Your task to perform on an android device: turn on javascript in the chrome app Image 0: 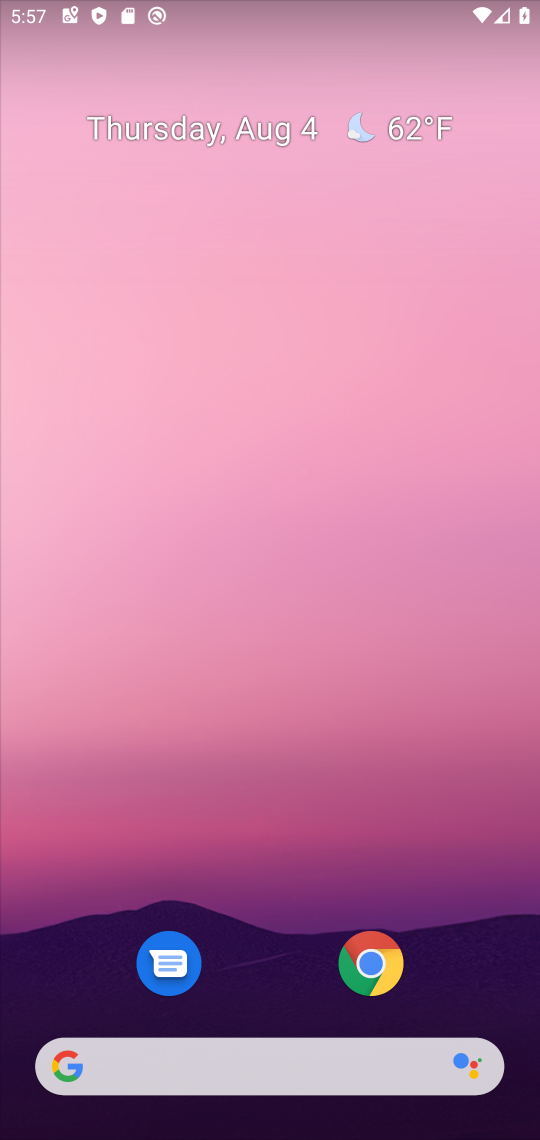
Step 0: click (367, 966)
Your task to perform on an android device: turn on javascript in the chrome app Image 1: 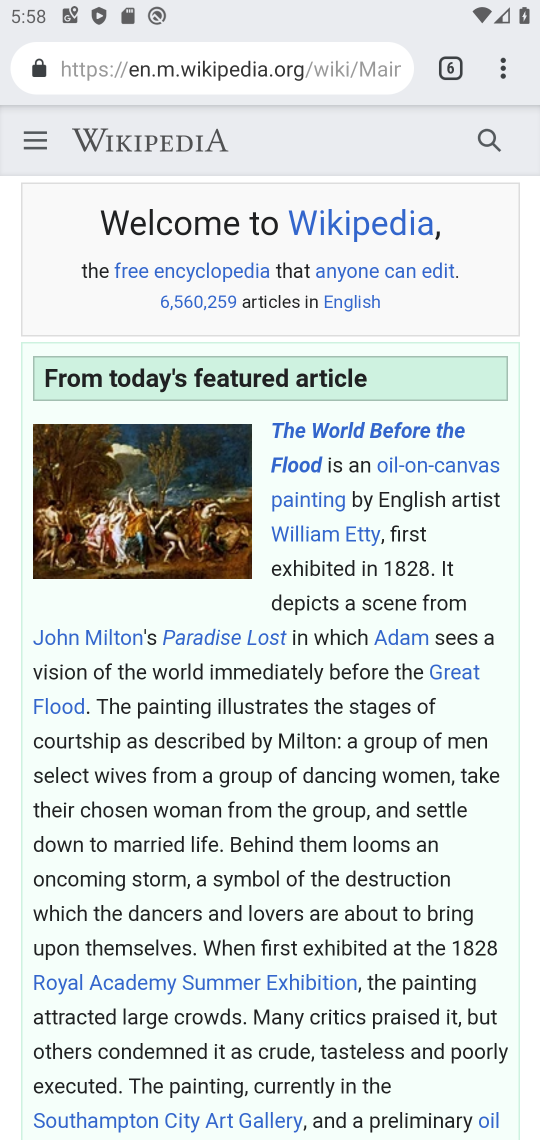
Step 1: click (508, 63)
Your task to perform on an android device: turn on javascript in the chrome app Image 2: 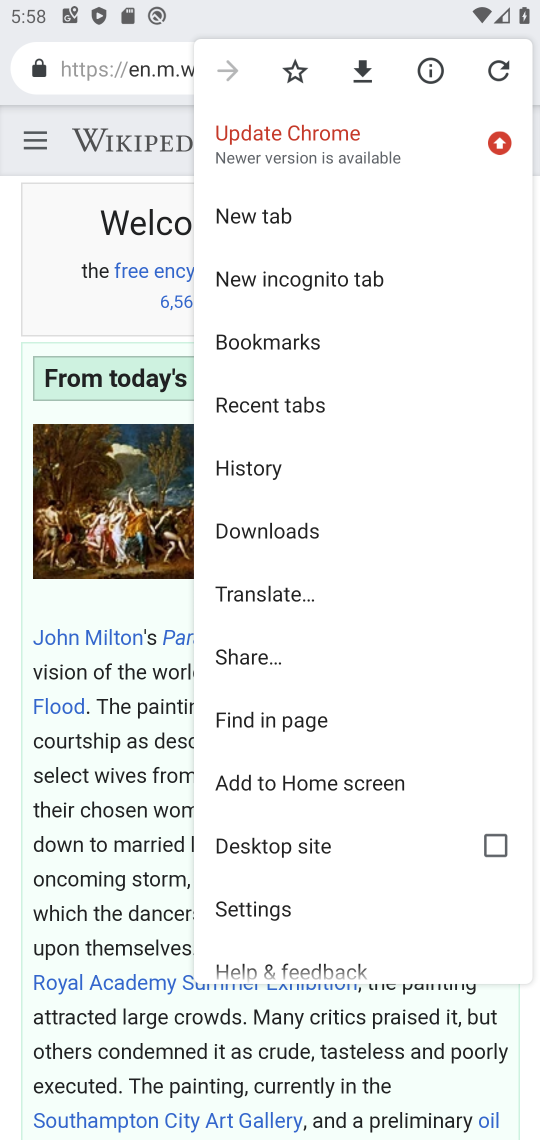
Step 2: click (254, 903)
Your task to perform on an android device: turn on javascript in the chrome app Image 3: 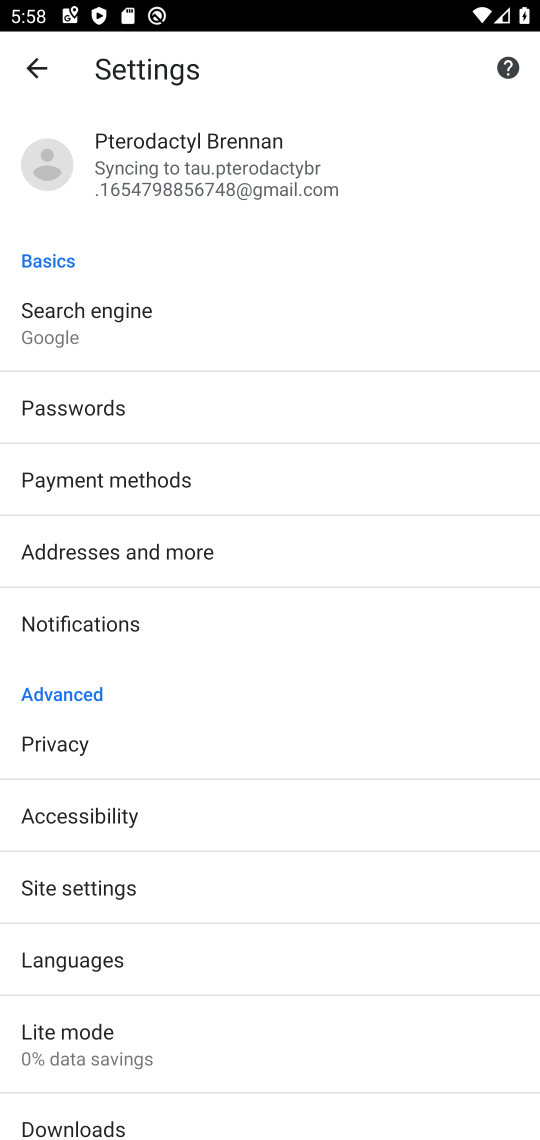
Step 3: click (118, 876)
Your task to perform on an android device: turn on javascript in the chrome app Image 4: 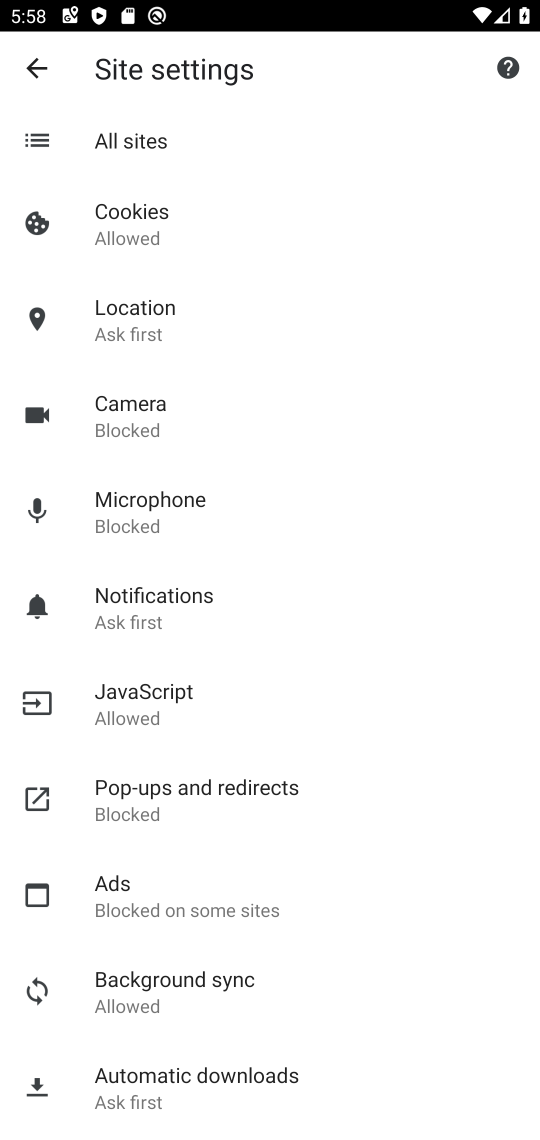
Step 4: click (132, 689)
Your task to perform on an android device: turn on javascript in the chrome app Image 5: 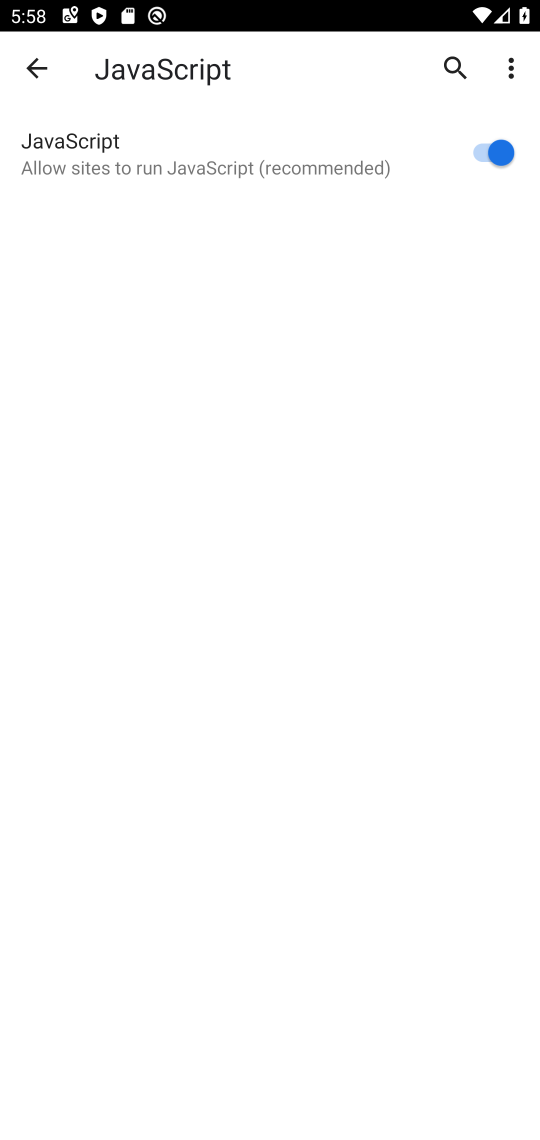
Step 5: task complete